Your task to perform on an android device: create a new album in the google photos Image 0: 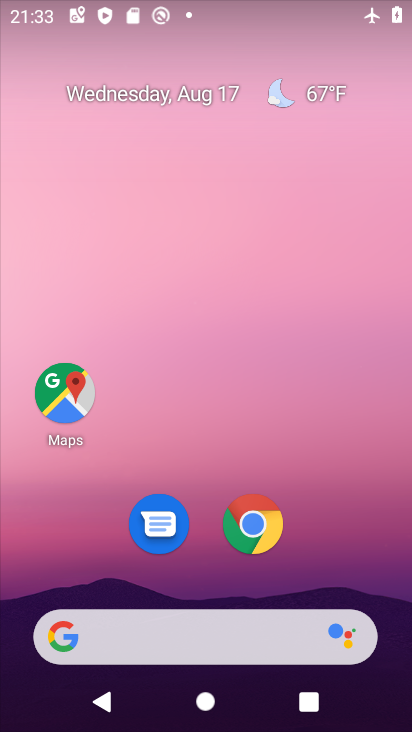
Step 0: drag from (310, 472) to (353, 4)
Your task to perform on an android device: create a new album in the google photos Image 1: 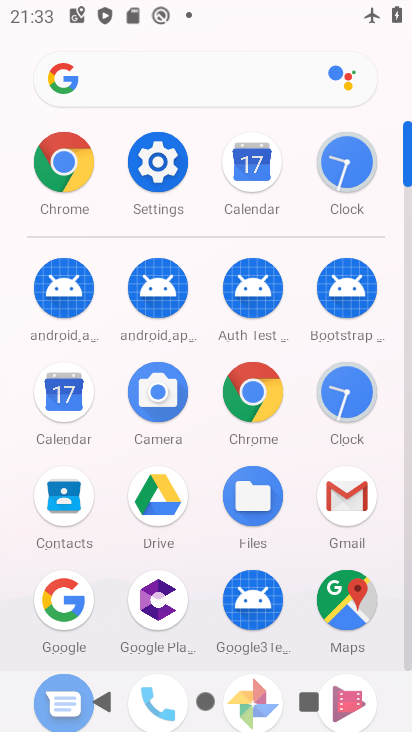
Step 1: drag from (210, 444) to (239, 67)
Your task to perform on an android device: create a new album in the google photos Image 2: 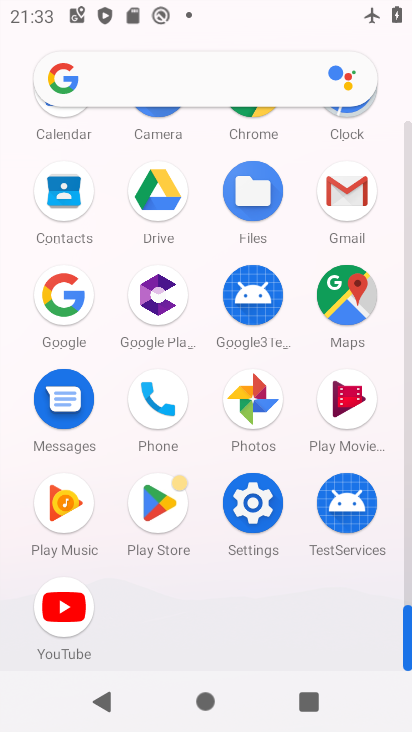
Step 2: click (251, 396)
Your task to perform on an android device: create a new album in the google photos Image 3: 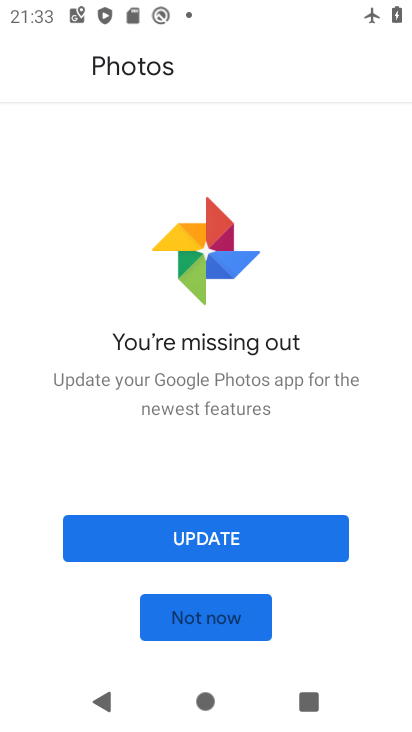
Step 3: click (216, 617)
Your task to perform on an android device: create a new album in the google photos Image 4: 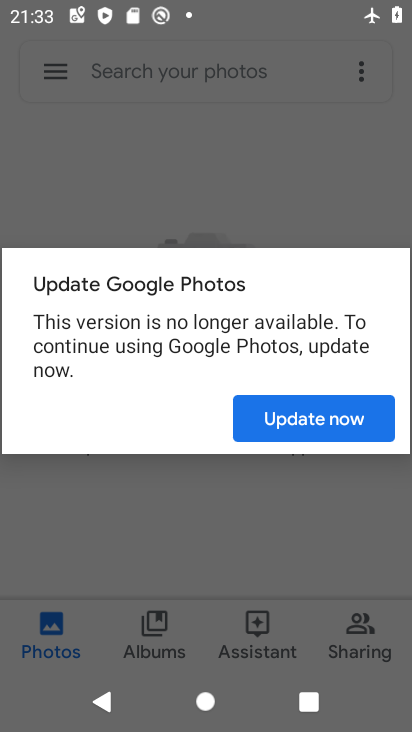
Step 4: click (349, 421)
Your task to perform on an android device: create a new album in the google photos Image 5: 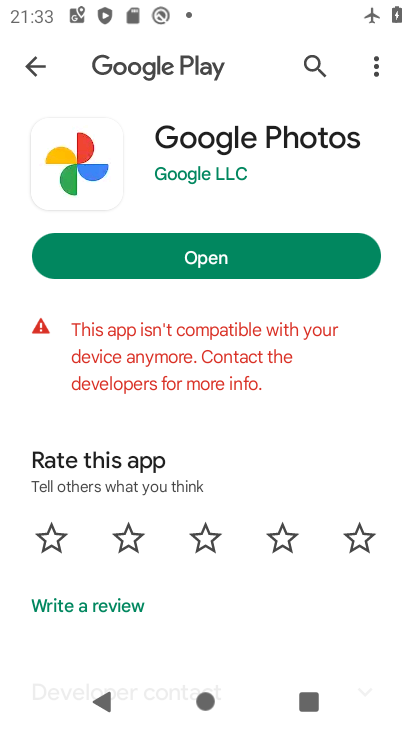
Step 5: click (297, 264)
Your task to perform on an android device: create a new album in the google photos Image 6: 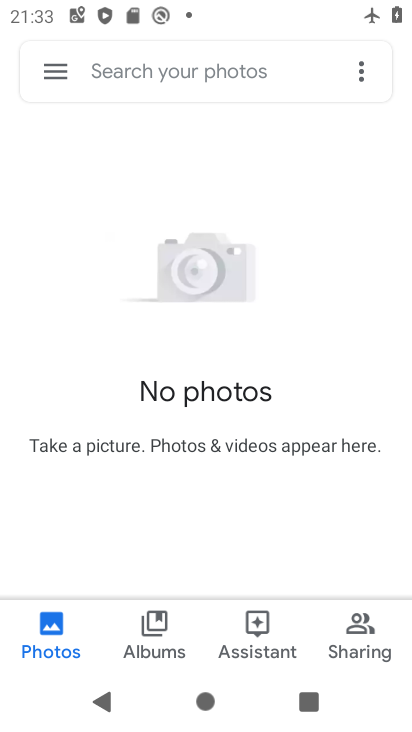
Step 6: click (155, 626)
Your task to perform on an android device: create a new album in the google photos Image 7: 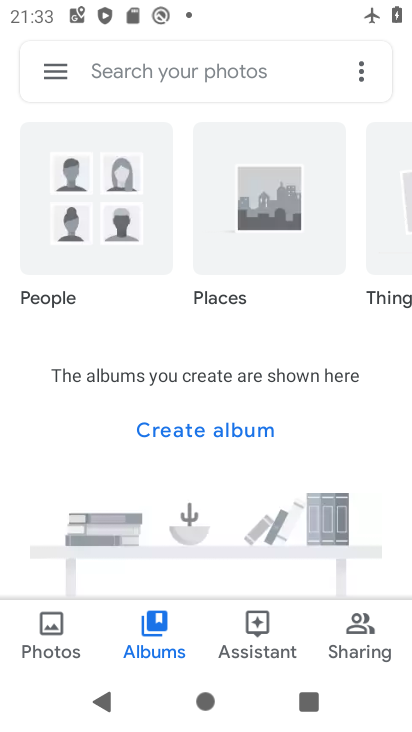
Step 7: click (225, 430)
Your task to perform on an android device: create a new album in the google photos Image 8: 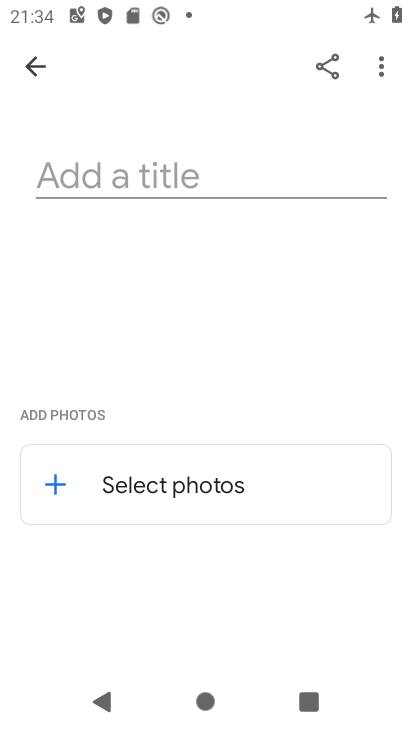
Step 8: type "Ayodhya Dham"
Your task to perform on an android device: create a new album in the google photos Image 9: 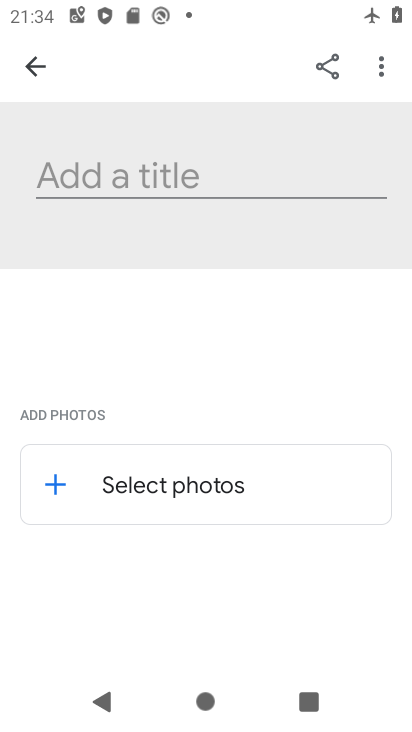
Step 9: click (222, 176)
Your task to perform on an android device: create a new album in the google photos Image 10: 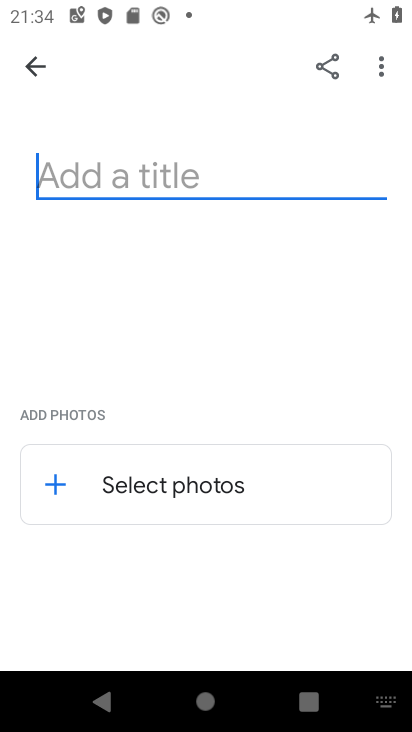
Step 10: type "Ayodhya Dham Teerth Sthal"
Your task to perform on an android device: create a new album in the google photos Image 11: 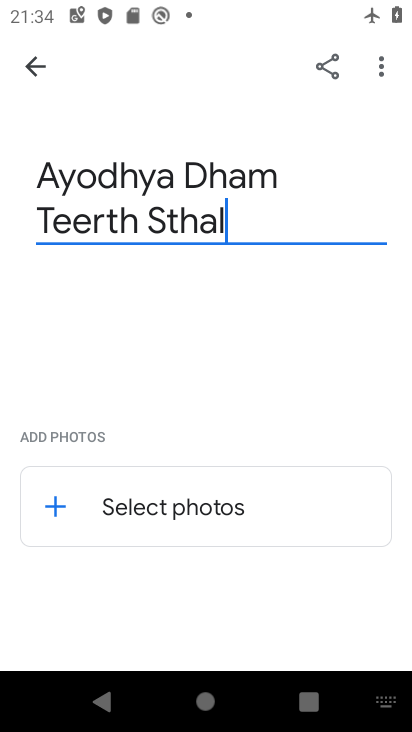
Step 11: task complete